Your task to perform on an android device: toggle javascript in the chrome app Image 0: 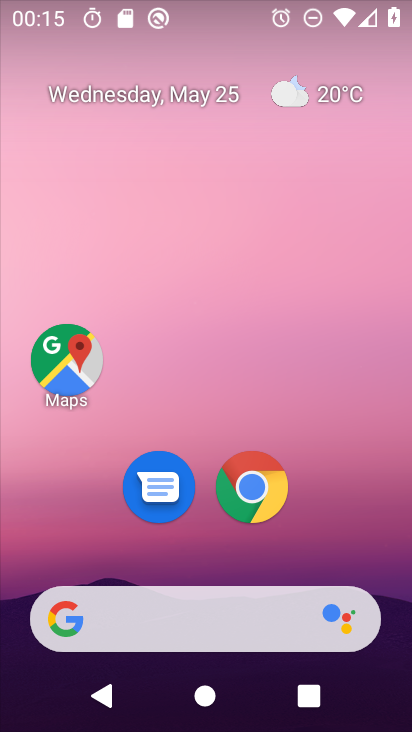
Step 0: click (257, 501)
Your task to perform on an android device: toggle javascript in the chrome app Image 1: 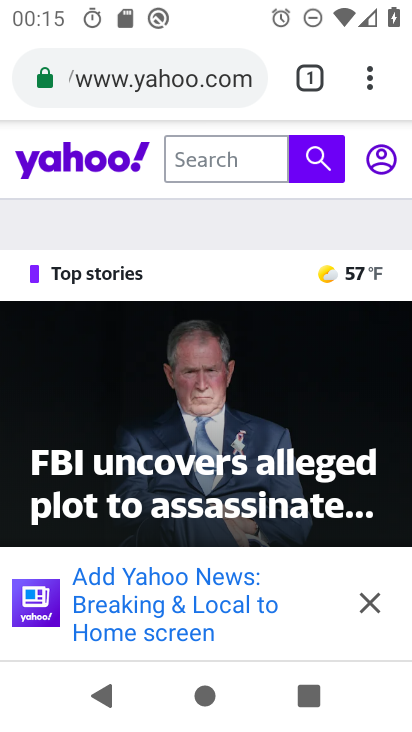
Step 1: click (372, 82)
Your task to perform on an android device: toggle javascript in the chrome app Image 2: 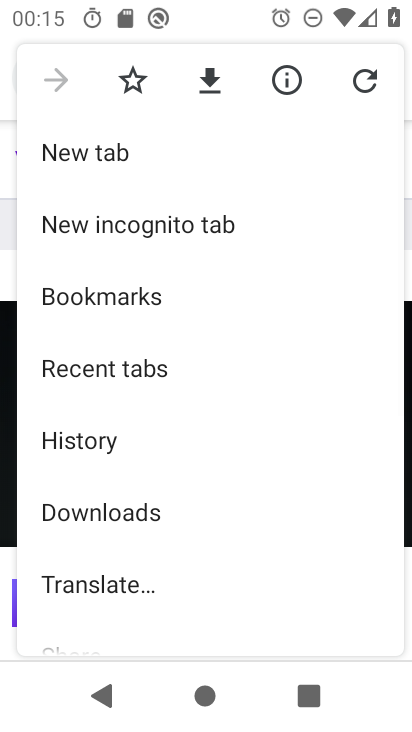
Step 2: drag from (227, 556) to (226, 195)
Your task to perform on an android device: toggle javascript in the chrome app Image 3: 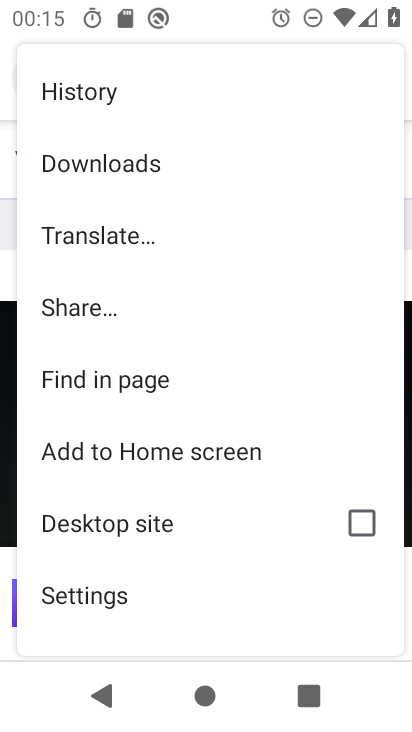
Step 3: drag from (210, 511) to (201, 269)
Your task to perform on an android device: toggle javascript in the chrome app Image 4: 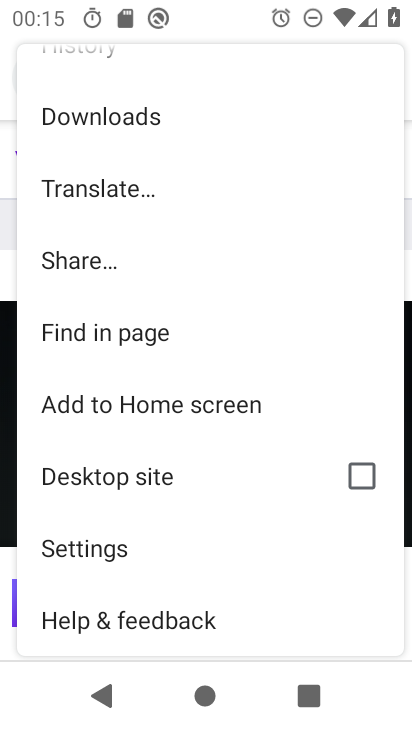
Step 4: click (78, 547)
Your task to perform on an android device: toggle javascript in the chrome app Image 5: 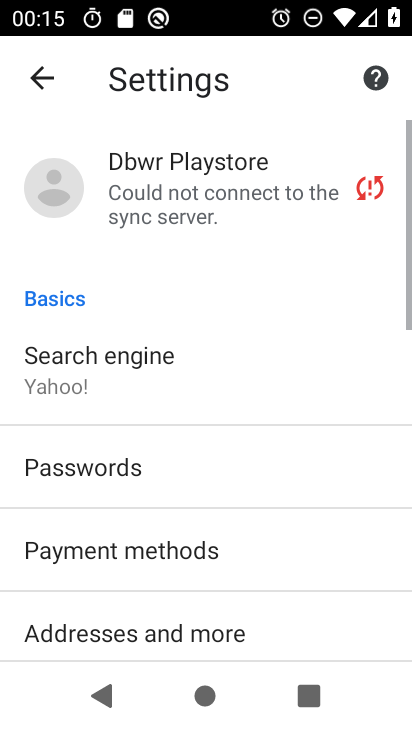
Step 5: drag from (214, 536) to (218, 141)
Your task to perform on an android device: toggle javascript in the chrome app Image 6: 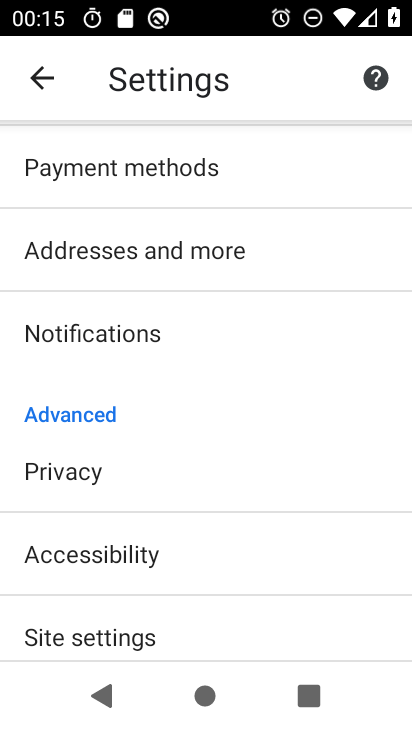
Step 6: drag from (192, 501) to (183, 152)
Your task to perform on an android device: toggle javascript in the chrome app Image 7: 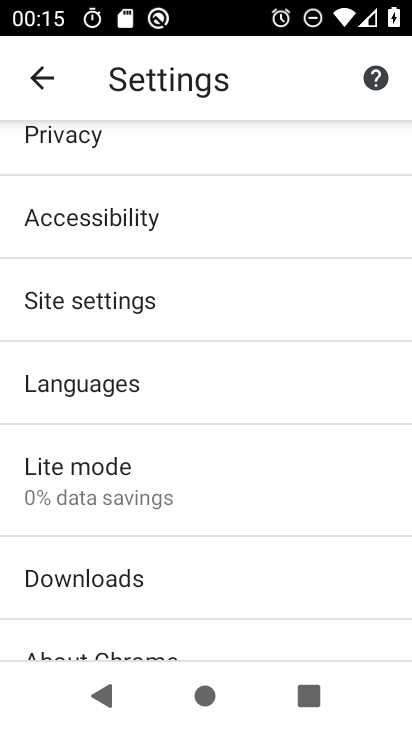
Step 7: click (89, 308)
Your task to perform on an android device: toggle javascript in the chrome app Image 8: 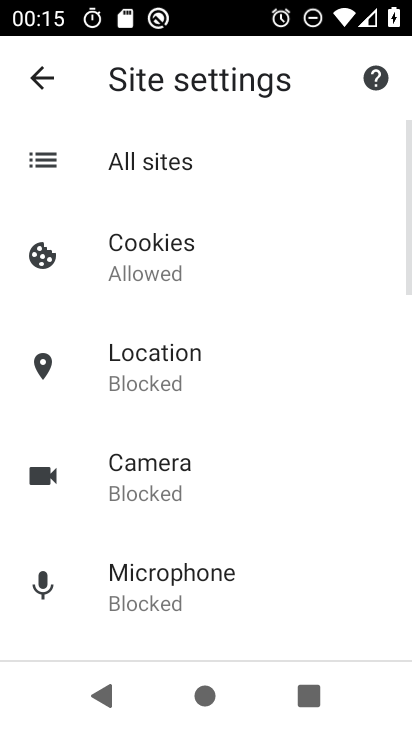
Step 8: drag from (287, 588) to (298, 158)
Your task to perform on an android device: toggle javascript in the chrome app Image 9: 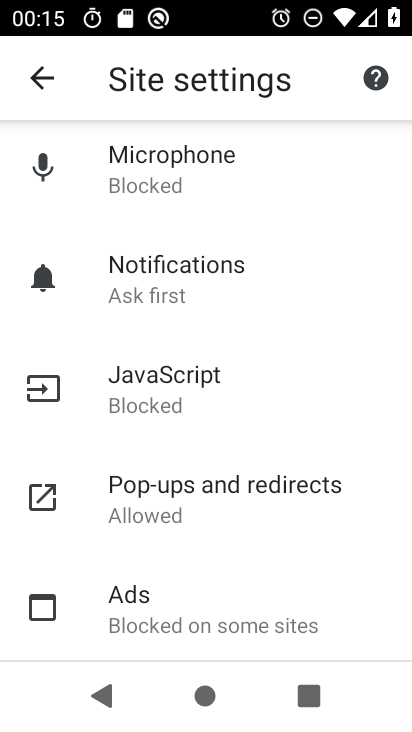
Step 9: click (158, 395)
Your task to perform on an android device: toggle javascript in the chrome app Image 10: 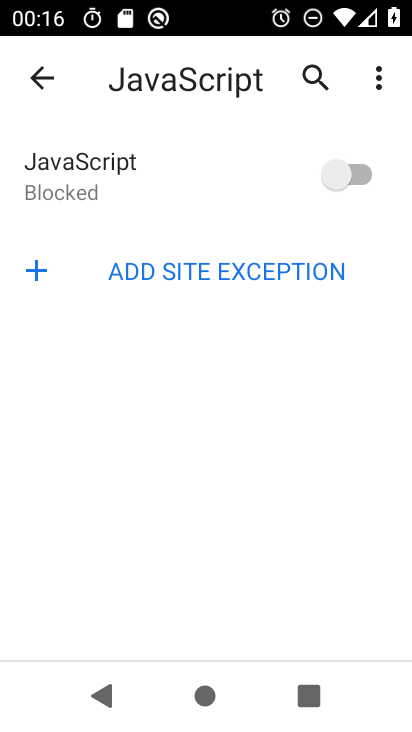
Step 10: click (336, 179)
Your task to perform on an android device: toggle javascript in the chrome app Image 11: 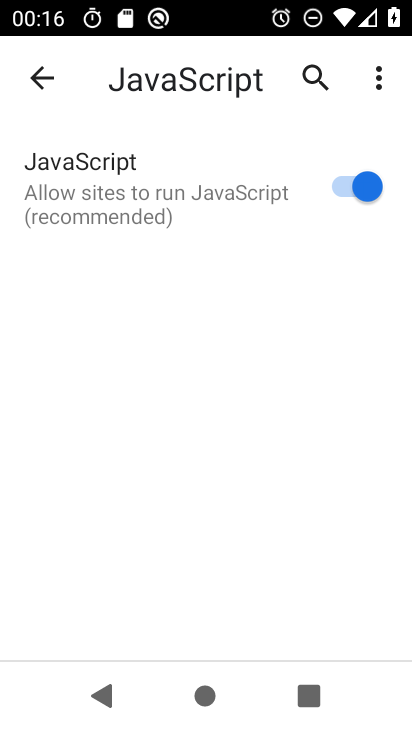
Step 11: task complete